Your task to perform on an android device: Open the calendar app, open the side menu, and click the "Day" option Image 0: 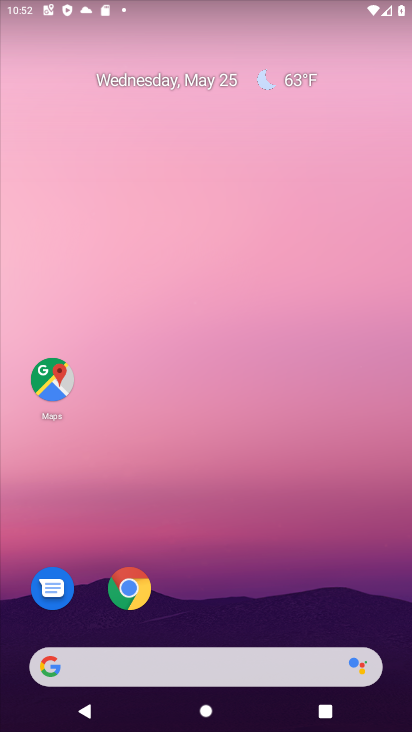
Step 0: drag from (227, 619) to (270, 151)
Your task to perform on an android device: Open the calendar app, open the side menu, and click the "Day" option Image 1: 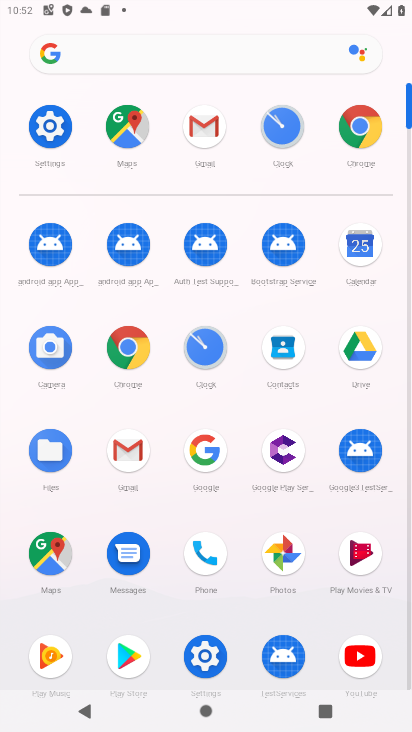
Step 1: click (367, 237)
Your task to perform on an android device: Open the calendar app, open the side menu, and click the "Day" option Image 2: 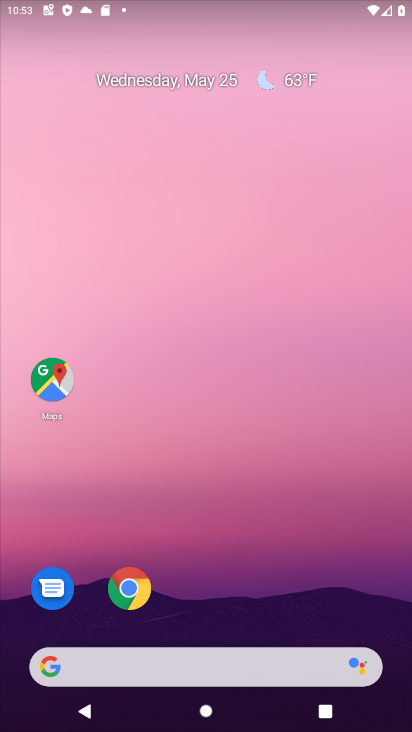
Step 2: drag from (261, 599) to (352, 93)
Your task to perform on an android device: Open the calendar app, open the side menu, and click the "Day" option Image 3: 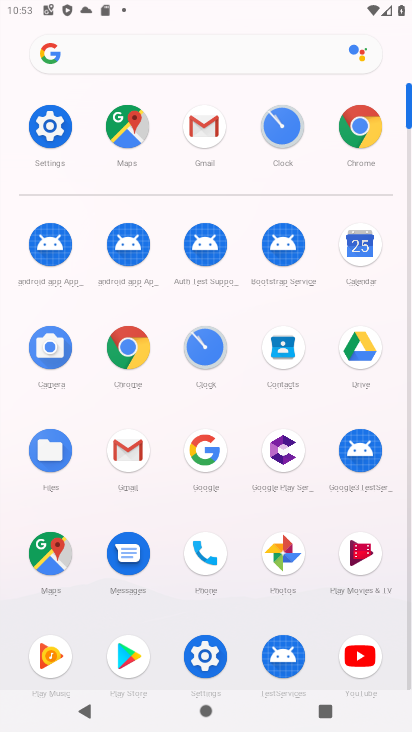
Step 3: click (360, 232)
Your task to perform on an android device: Open the calendar app, open the side menu, and click the "Day" option Image 4: 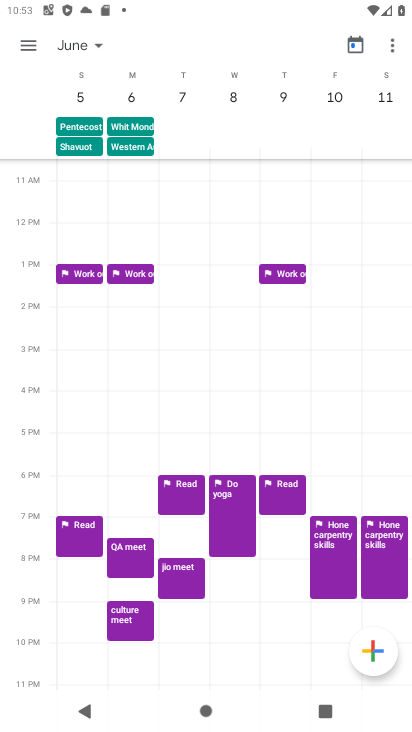
Step 4: click (29, 55)
Your task to perform on an android device: Open the calendar app, open the side menu, and click the "Day" option Image 5: 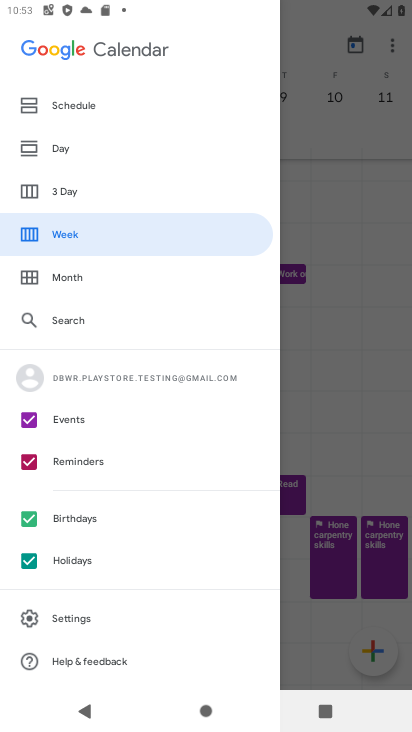
Step 5: click (54, 149)
Your task to perform on an android device: Open the calendar app, open the side menu, and click the "Day" option Image 6: 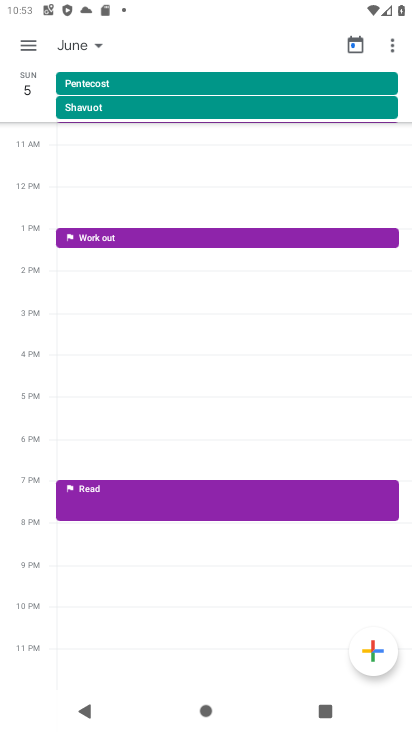
Step 6: task complete